Your task to perform on an android device: Open Reddit.com Image 0: 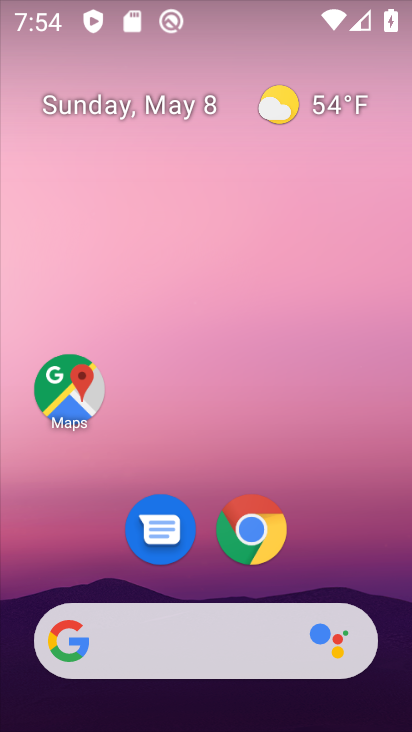
Step 0: drag from (363, 569) to (325, 94)
Your task to perform on an android device: Open Reddit.com Image 1: 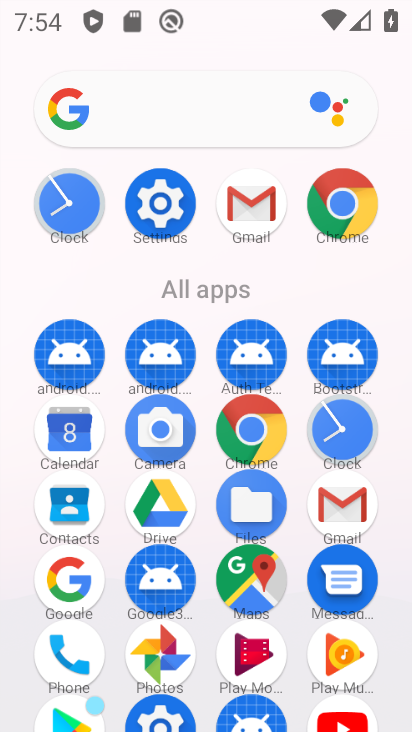
Step 1: click (367, 196)
Your task to perform on an android device: Open Reddit.com Image 2: 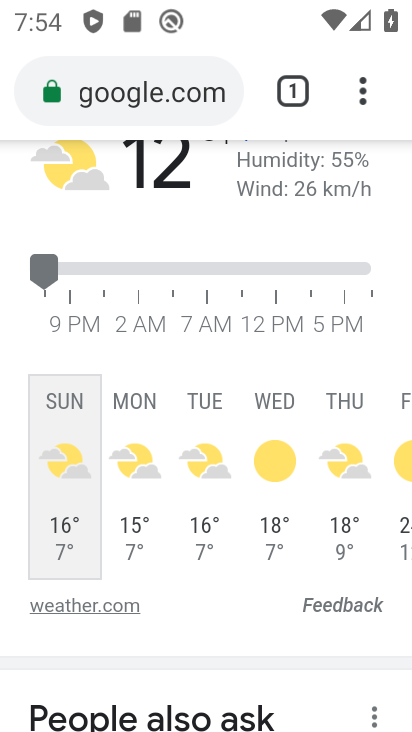
Step 2: click (157, 92)
Your task to perform on an android device: Open Reddit.com Image 3: 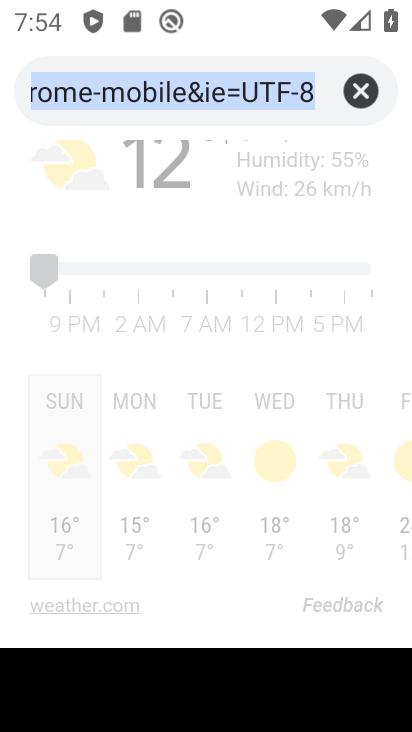
Step 3: click (350, 96)
Your task to perform on an android device: Open Reddit.com Image 4: 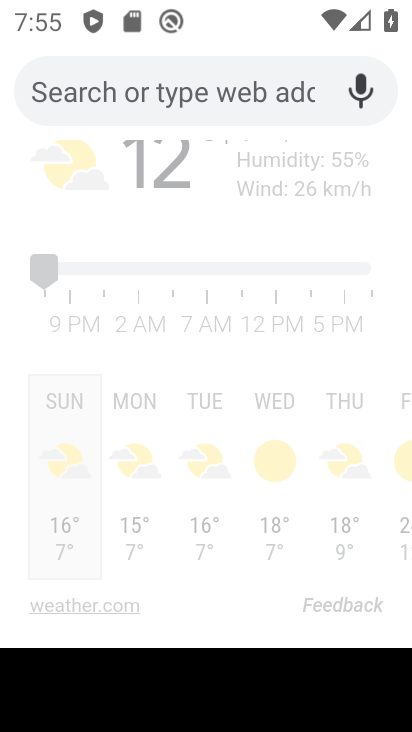
Step 4: type "reddit.com"
Your task to perform on an android device: Open Reddit.com Image 5: 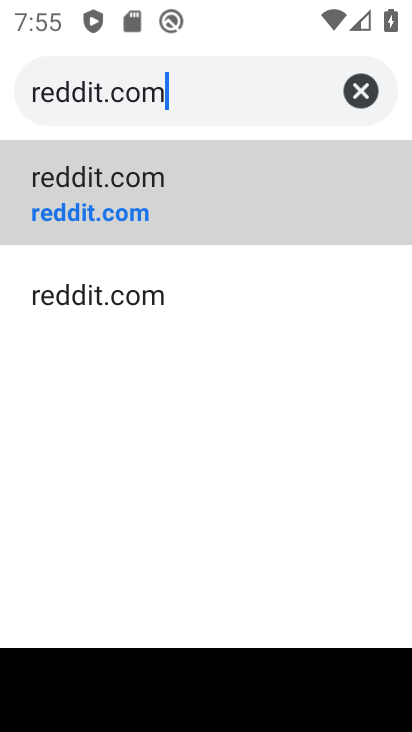
Step 5: click (67, 157)
Your task to perform on an android device: Open Reddit.com Image 6: 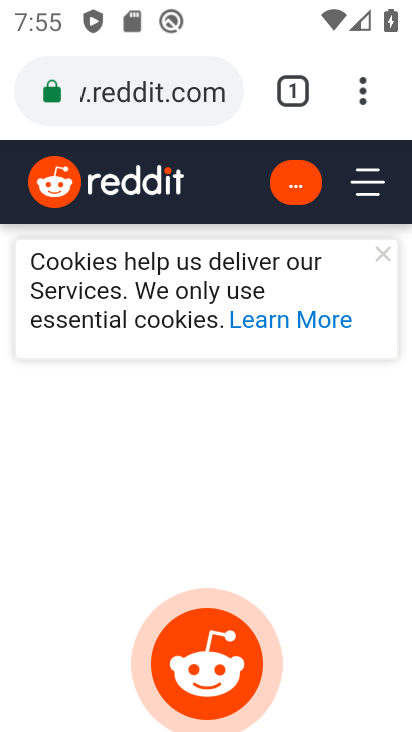
Step 6: click (387, 255)
Your task to perform on an android device: Open Reddit.com Image 7: 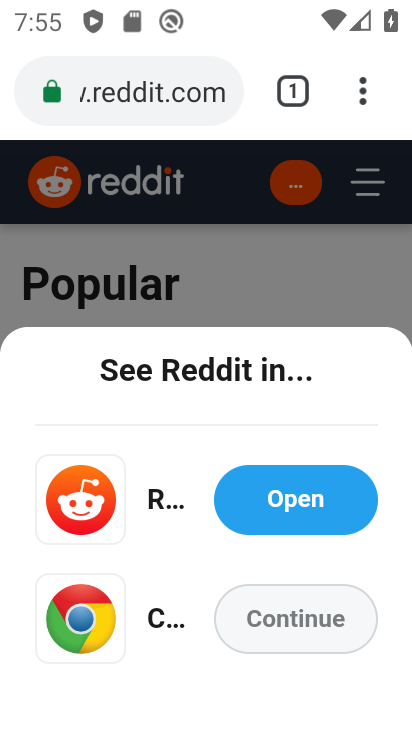
Step 7: task complete